Your task to perform on an android device: make emails show in primary in the gmail app Image 0: 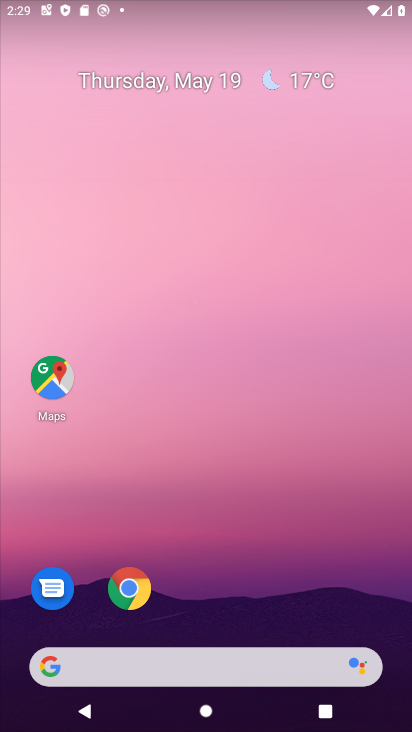
Step 0: drag from (222, 559) to (207, 105)
Your task to perform on an android device: make emails show in primary in the gmail app Image 1: 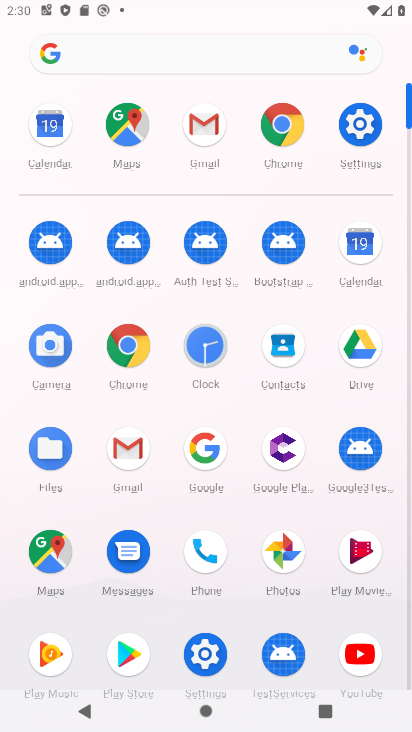
Step 1: click (207, 135)
Your task to perform on an android device: make emails show in primary in the gmail app Image 2: 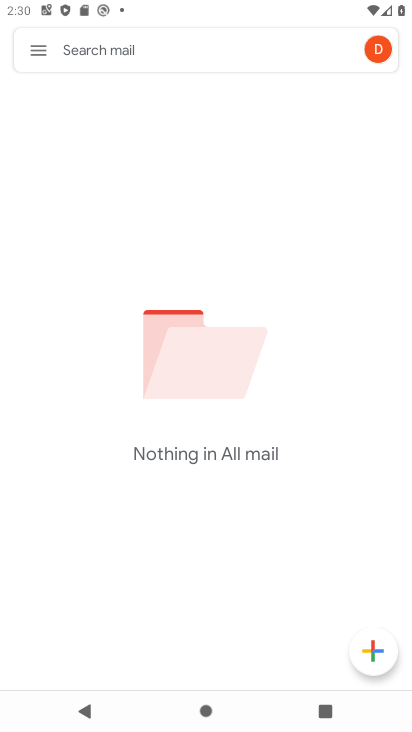
Step 2: click (36, 38)
Your task to perform on an android device: make emails show in primary in the gmail app Image 3: 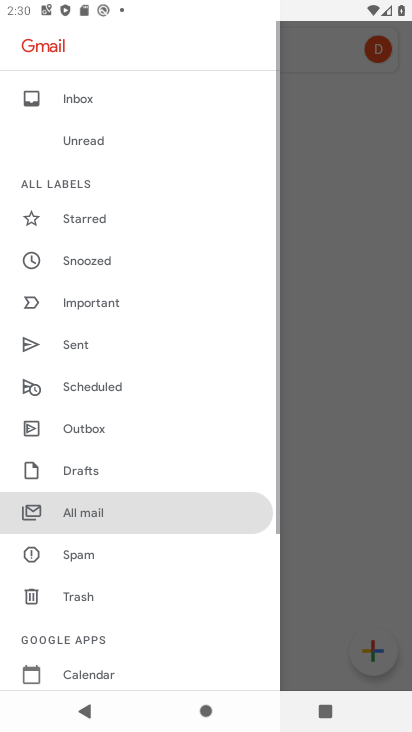
Step 3: drag from (99, 626) to (130, 175)
Your task to perform on an android device: make emails show in primary in the gmail app Image 4: 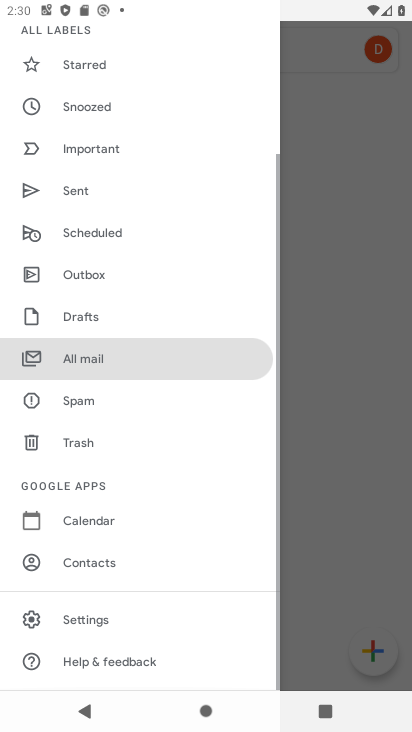
Step 4: click (102, 624)
Your task to perform on an android device: make emails show in primary in the gmail app Image 5: 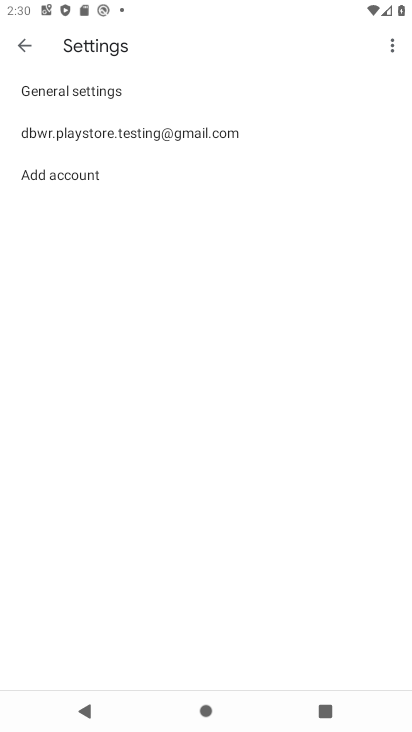
Step 5: click (139, 126)
Your task to perform on an android device: make emails show in primary in the gmail app Image 6: 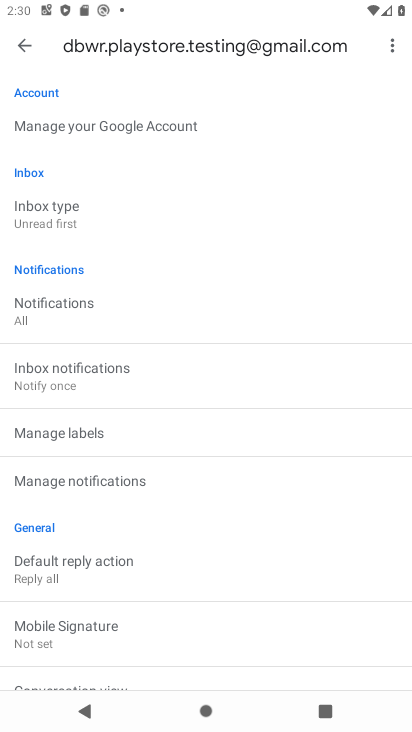
Step 6: drag from (182, 511) to (242, 177)
Your task to perform on an android device: make emails show in primary in the gmail app Image 7: 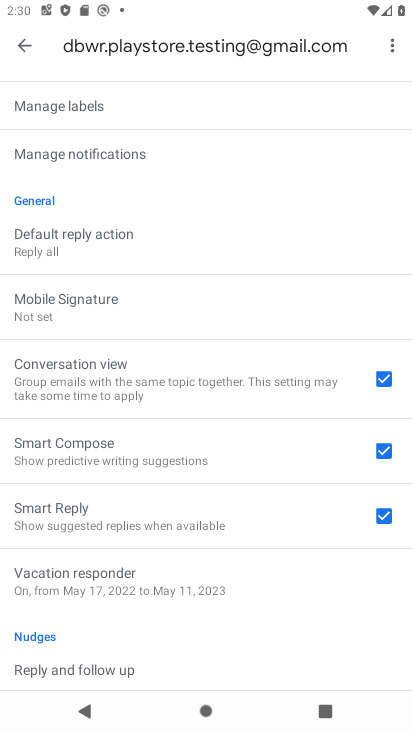
Step 7: drag from (202, 198) to (190, 627)
Your task to perform on an android device: make emails show in primary in the gmail app Image 8: 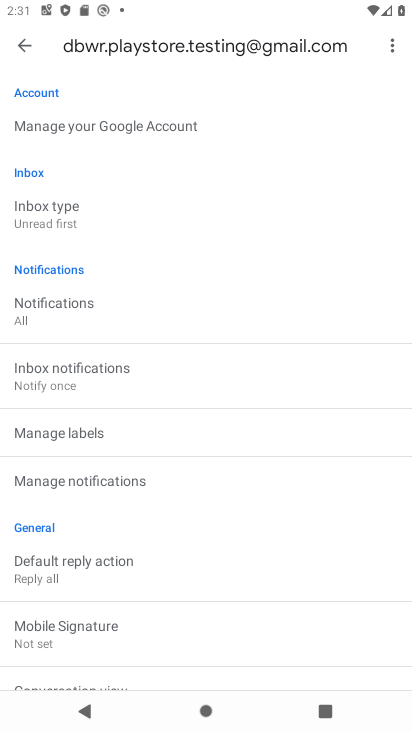
Step 8: click (62, 221)
Your task to perform on an android device: make emails show in primary in the gmail app Image 9: 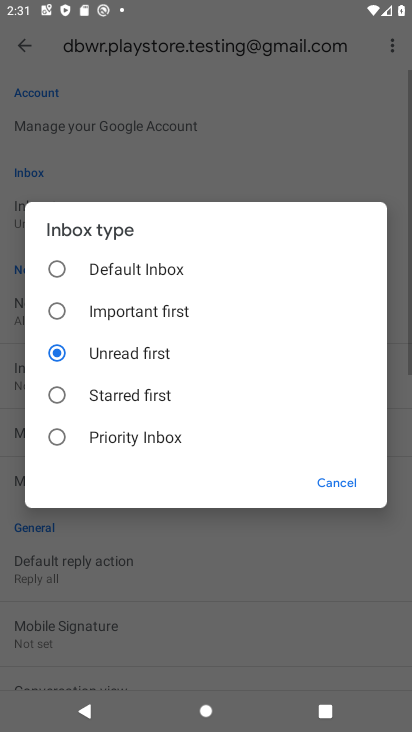
Step 9: click (152, 268)
Your task to perform on an android device: make emails show in primary in the gmail app Image 10: 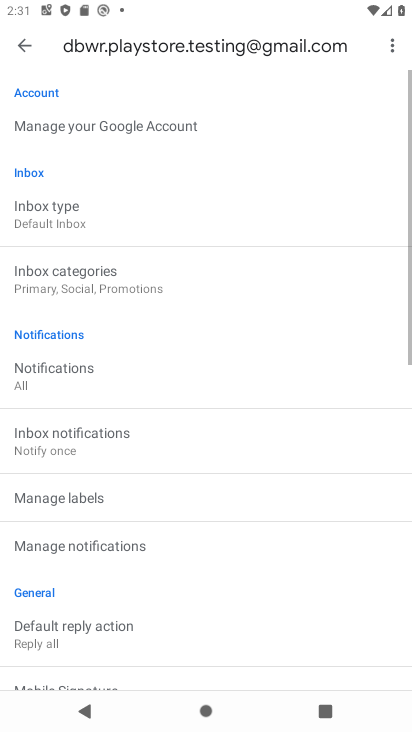
Step 10: click (89, 296)
Your task to perform on an android device: make emails show in primary in the gmail app Image 11: 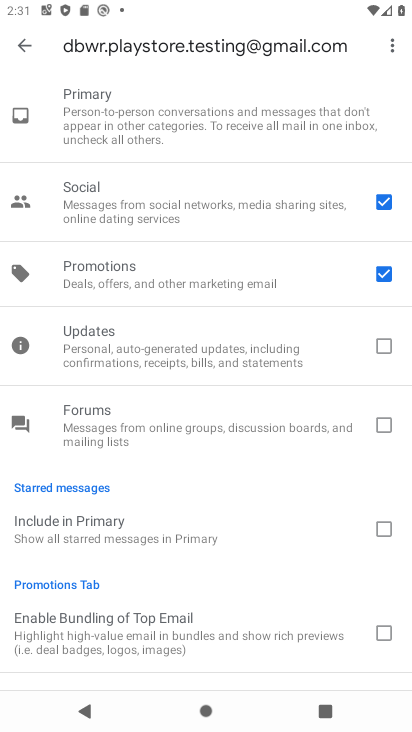
Step 11: task complete